Your task to perform on an android device: Toggle the flashlight Image 0: 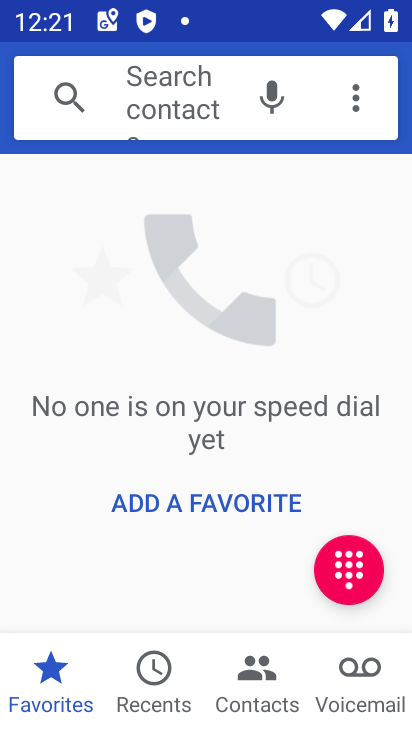
Step 0: press home button
Your task to perform on an android device: Toggle the flashlight Image 1: 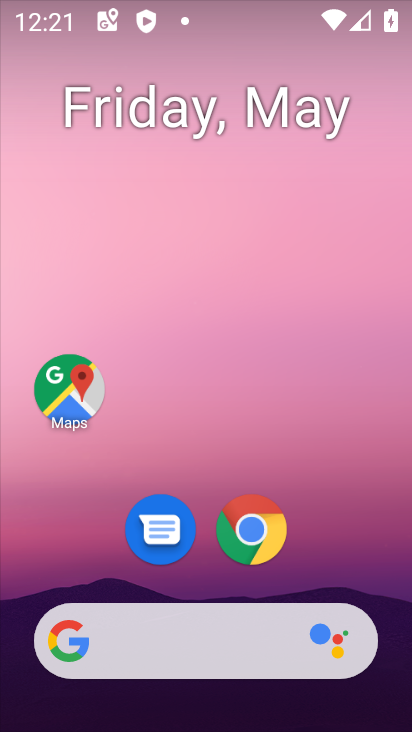
Step 1: drag from (299, 527) to (240, 164)
Your task to perform on an android device: Toggle the flashlight Image 2: 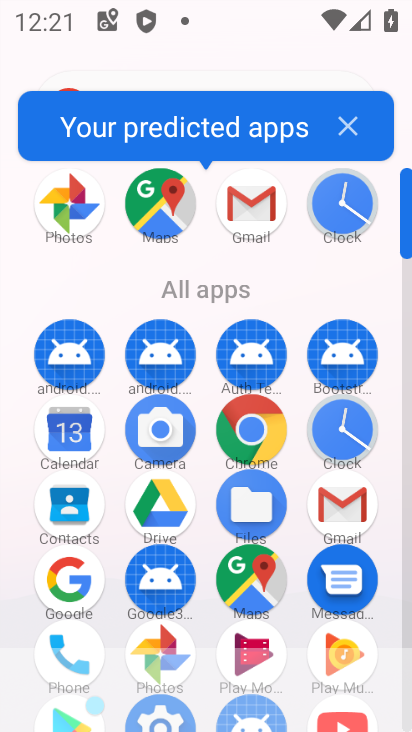
Step 2: drag from (300, 577) to (297, 212)
Your task to perform on an android device: Toggle the flashlight Image 3: 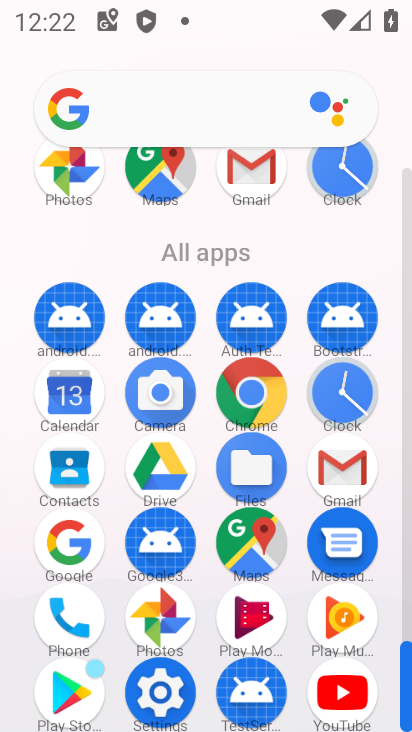
Step 3: click (156, 684)
Your task to perform on an android device: Toggle the flashlight Image 4: 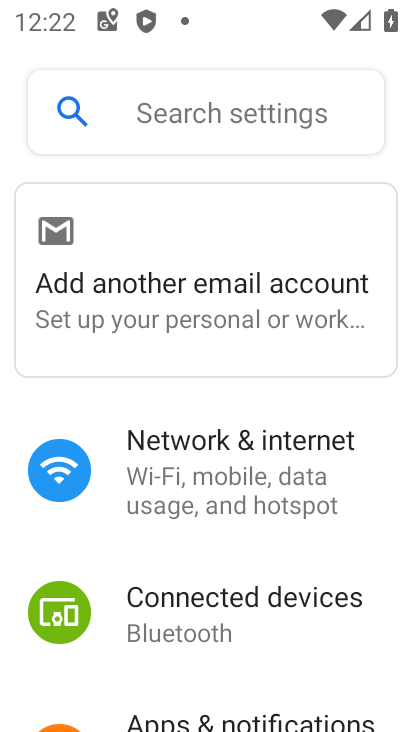
Step 4: click (202, 106)
Your task to perform on an android device: Toggle the flashlight Image 5: 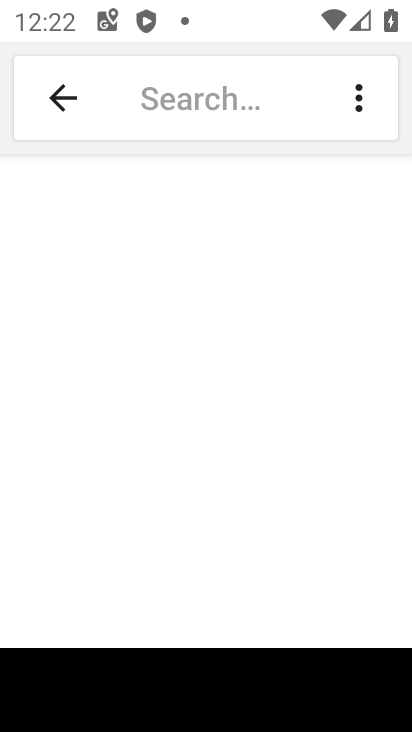
Step 5: type "flashlight"
Your task to perform on an android device: Toggle the flashlight Image 6: 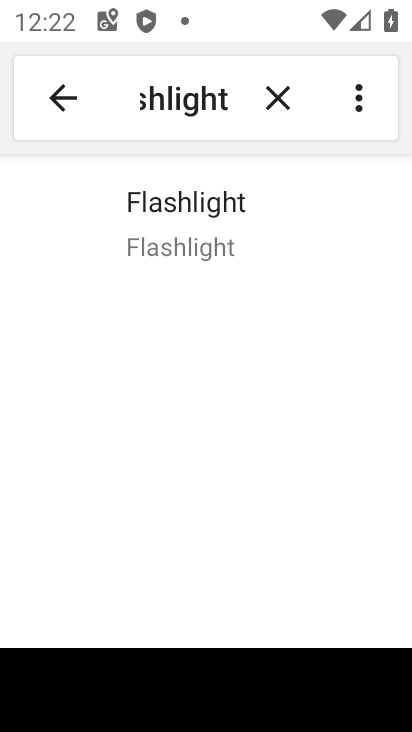
Step 6: click (192, 217)
Your task to perform on an android device: Toggle the flashlight Image 7: 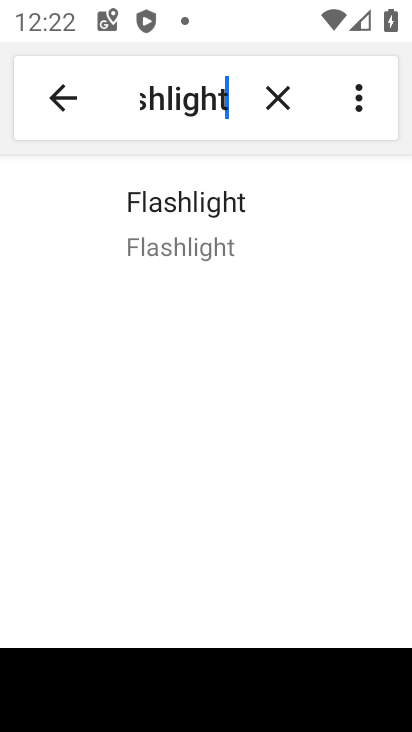
Step 7: click (196, 220)
Your task to perform on an android device: Toggle the flashlight Image 8: 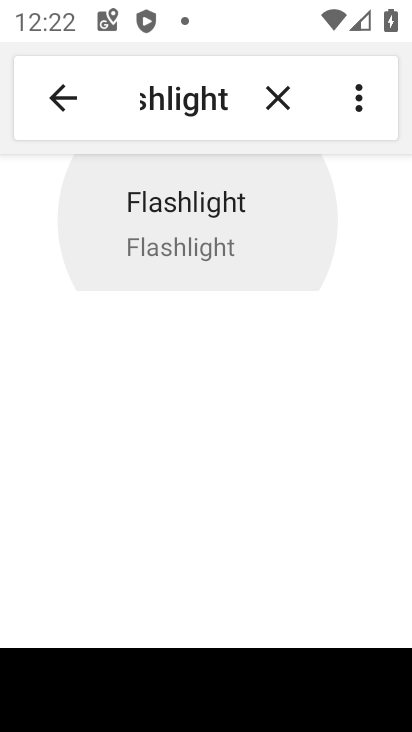
Step 8: click (196, 220)
Your task to perform on an android device: Toggle the flashlight Image 9: 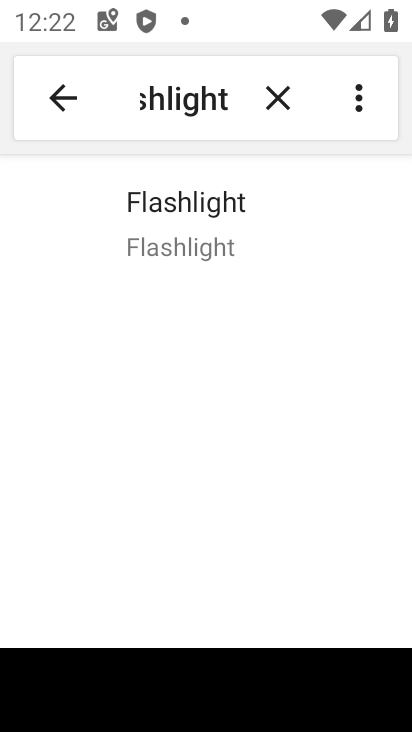
Step 9: click (197, 221)
Your task to perform on an android device: Toggle the flashlight Image 10: 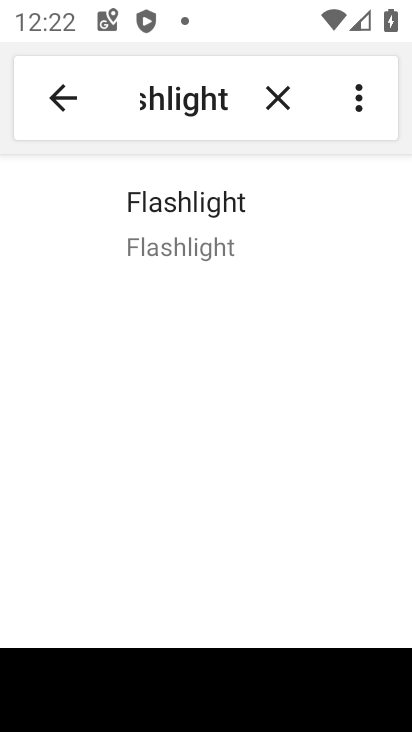
Step 10: task complete